Your task to perform on an android device: open app "Paramount+ | Peak Streaming" (install if not already installed) Image 0: 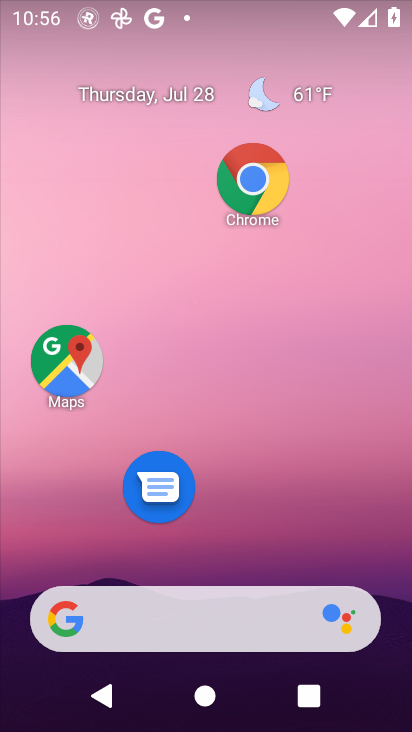
Step 0: drag from (300, 525) to (299, 32)
Your task to perform on an android device: open app "Paramount+ | Peak Streaming" (install if not already installed) Image 1: 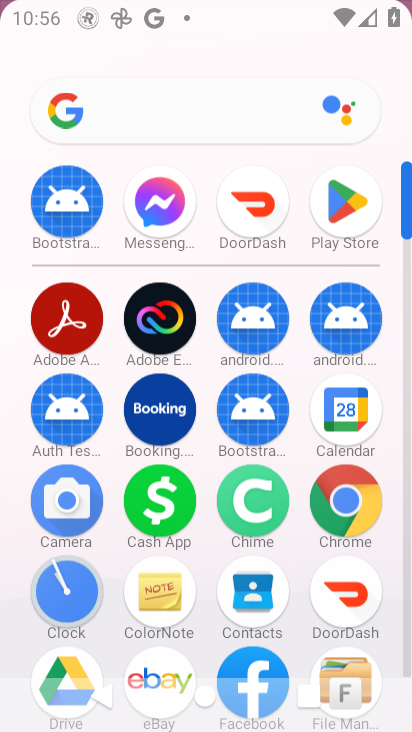
Step 1: drag from (260, 535) to (261, 210)
Your task to perform on an android device: open app "Paramount+ | Peak Streaming" (install if not already installed) Image 2: 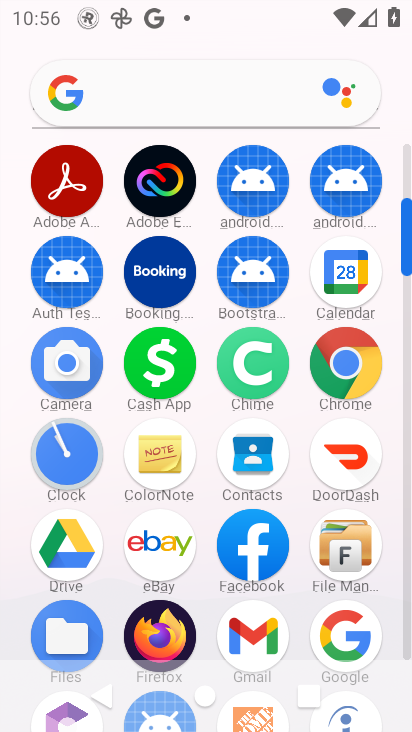
Step 2: drag from (284, 245) to (290, 422)
Your task to perform on an android device: open app "Paramount+ | Peak Streaming" (install if not already installed) Image 3: 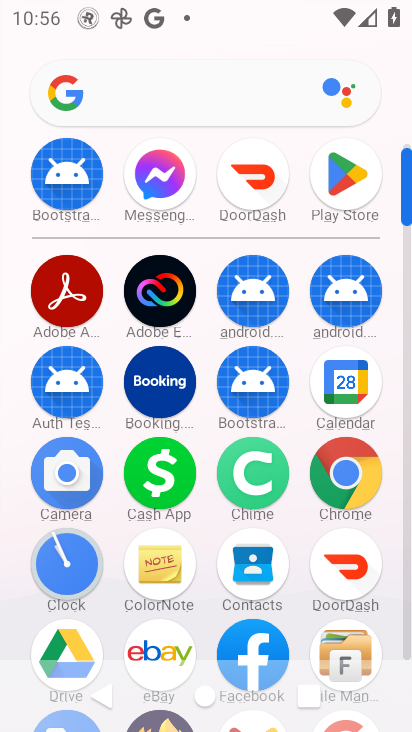
Step 3: click (329, 180)
Your task to perform on an android device: open app "Paramount+ | Peak Streaming" (install if not already installed) Image 4: 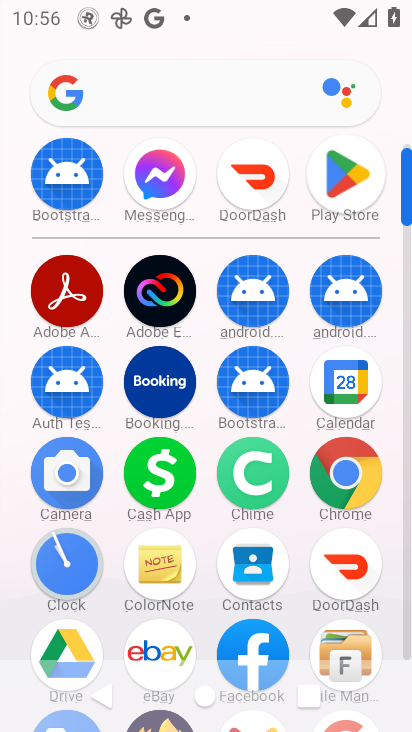
Step 4: click (340, 181)
Your task to perform on an android device: open app "Paramount+ | Peak Streaming" (install if not already installed) Image 5: 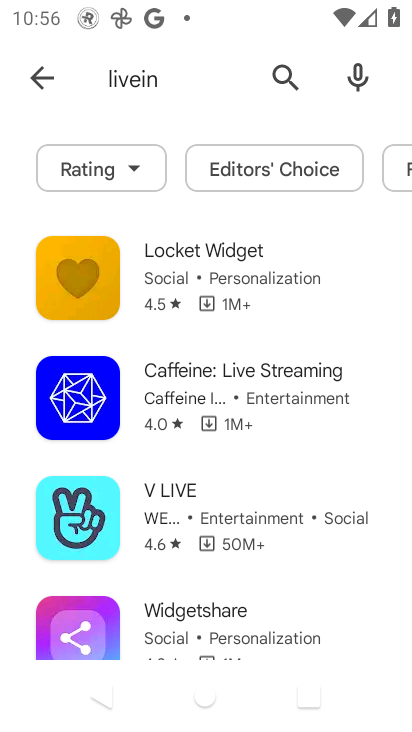
Step 5: click (41, 69)
Your task to perform on an android device: open app "Paramount+ | Peak Streaming" (install if not already installed) Image 6: 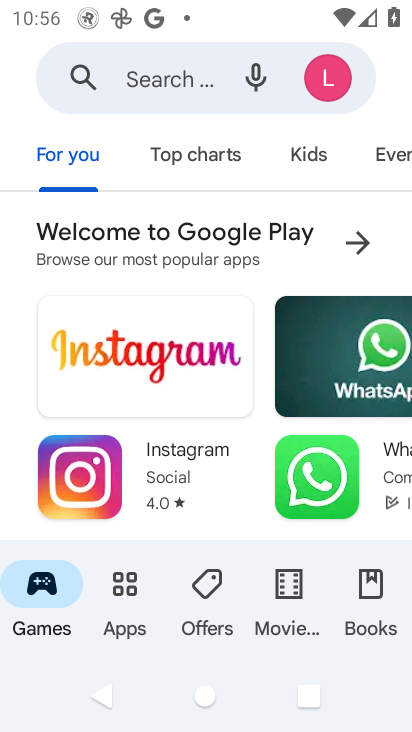
Step 6: click (177, 96)
Your task to perform on an android device: open app "Paramount+ | Peak Streaming" (install if not already installed) Image 7: 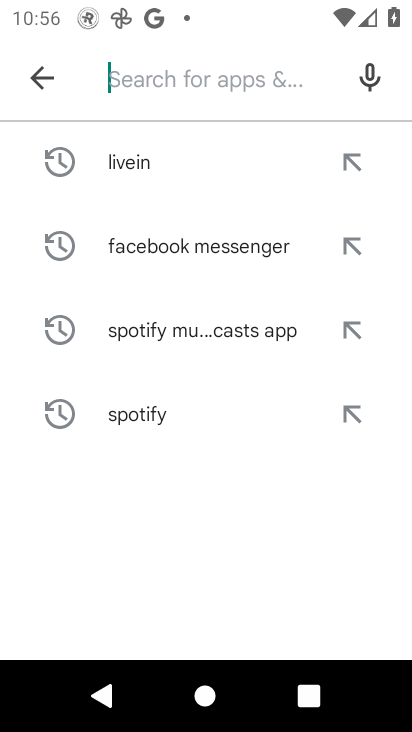
Step 7: type "Paramount +l Peak Streaming"
Your task to perform on an android device: open app "Paramount+ | Peak Streaming" (install if not already installed) Image 8: 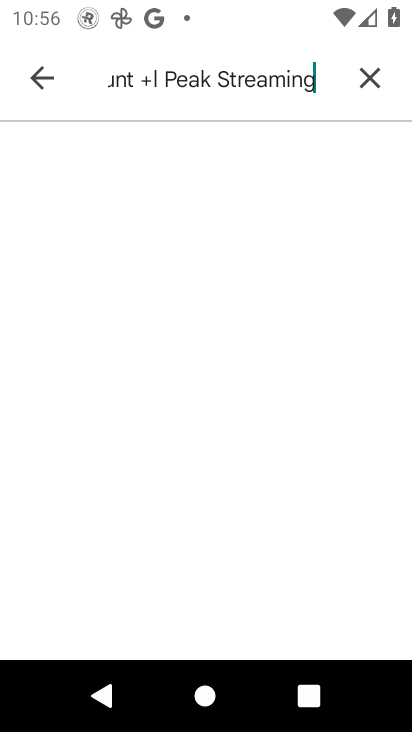
Step 8: click (308, 80)
Your task to perform on an android device: open app "Paramount+ | Peak Streaming" (install if not already installed) Image 9: 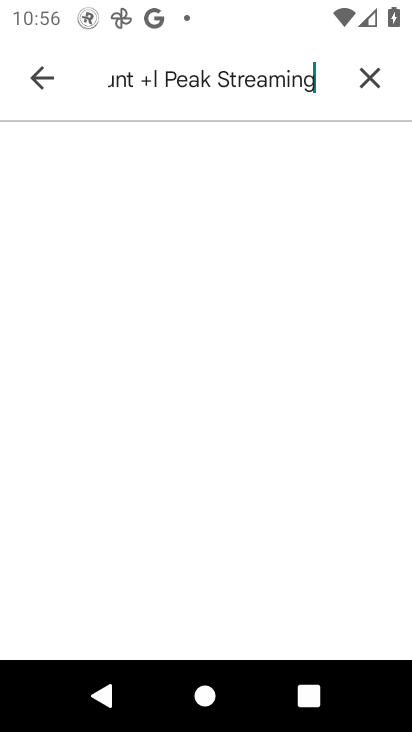
Step 9: click (306, 79)
Your task to perform on an android device: open app "Paramount+ | Peak Streaming" (install if not already installed) Image 10: 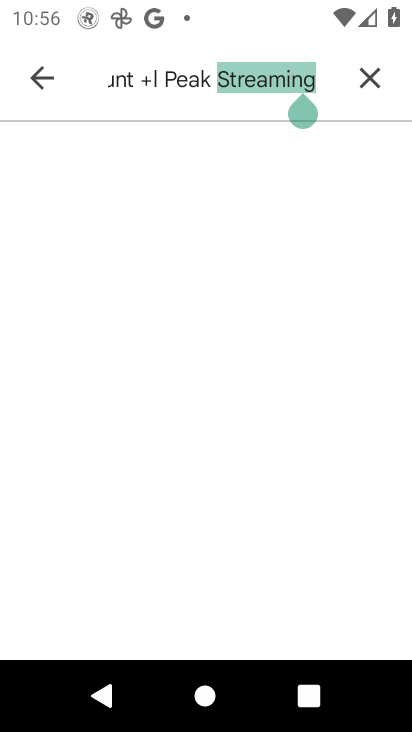
Step 10: click (306, 79)
Your task to perform on an android device: open app "Paramount+ | Peak Streaming" (install if not already installed) Image 11: 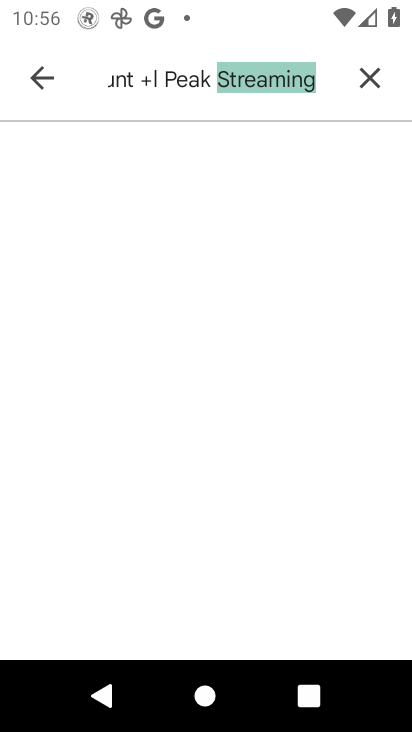
Step 11: click (306, 80)
Your task to perform on an android device: open app "Paramount+ | Peak Streaming" (install if not already installed) Image 12: 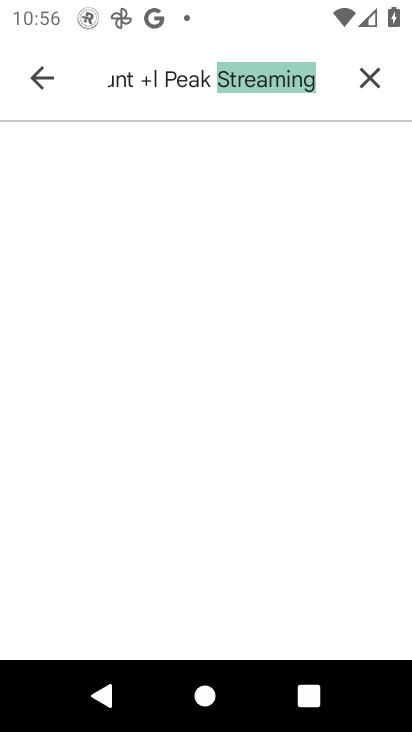
Step 12: click (306, 81)
Your task to perform on an android device: open app "Paramount+ | Peak Streaming" (install if not already installed) Image 13: 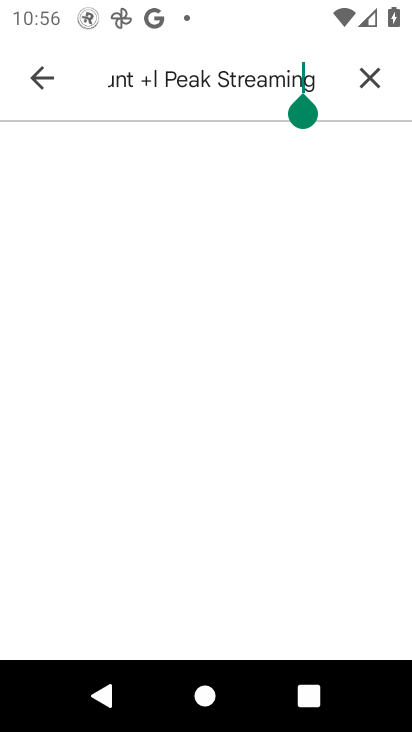
Step 13: click (335, 84)
Your task to perform on an android device: open app "Paramount+ | Peak Streaming" (install if not already installed) Image 14: 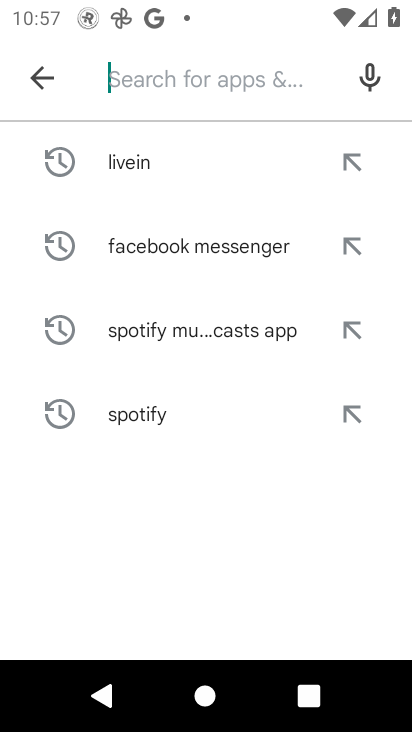
Step 14: click (326, 77)
Your task to perform on an android device: open app "Paramount+ | Peak Streaming" (install if not already installed) Image 15: 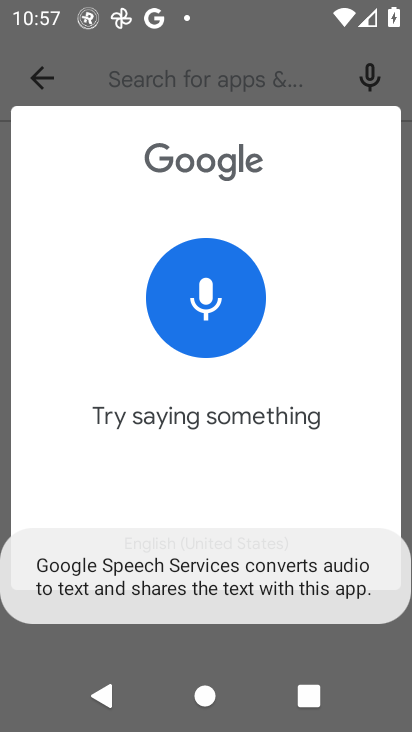
Step 15: click (175, 158)
Your task to perform on an android device: open app "Paramount+ | Peak Streaming" (install if not already installed) Image 16: 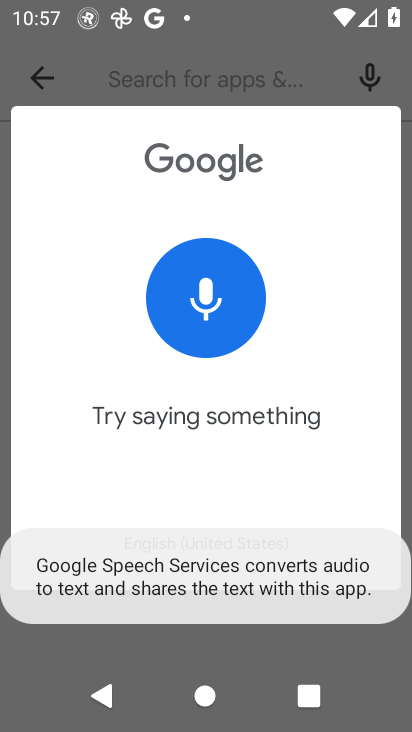
Step 16: click (227, 62)
Your task to perform on an android device: open app "Paramount+ | Peak Streaming" (install if not already installed) Image 17: 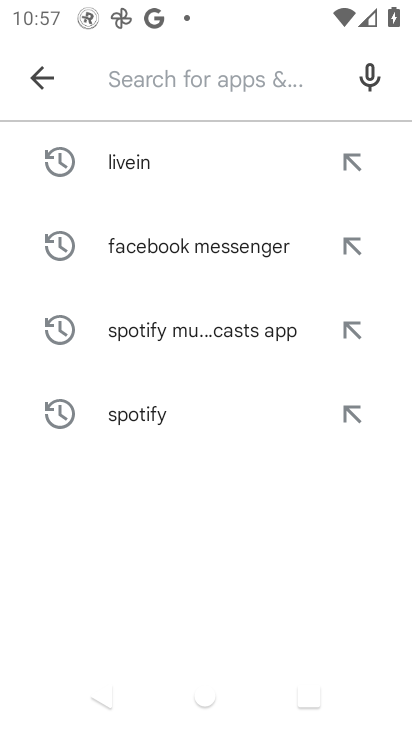
Step 17: type "paramount"
Your task to perform on an android device: open app "Paramount+ | Peak Streaming" (install if not already installed) Image 18: 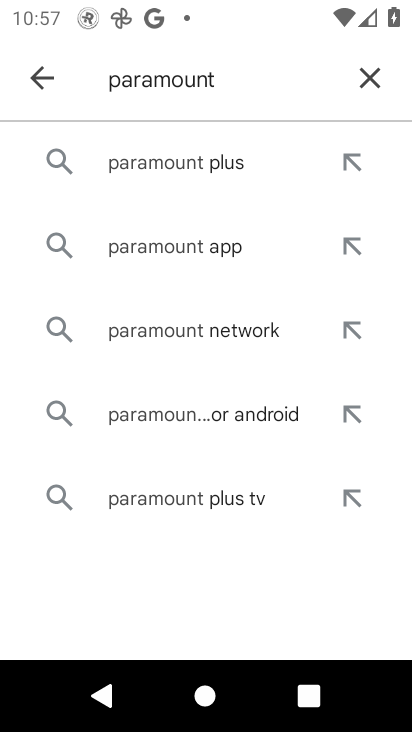
Step 18: click (124, 164)
Your task to perform on an android device: open app "Paramount+ | Peak Streaming" (install if not already installed) Image 19: 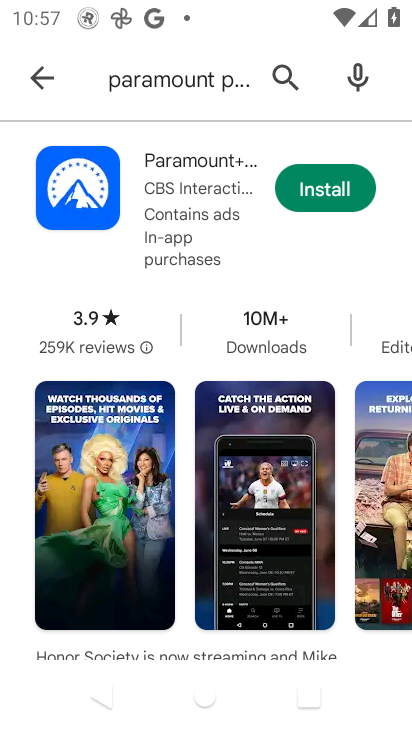
Step 19: click (299, 173)
Your task to perform on an android device: open app "Paramount+ | Peak Streaming" (install if not already installed) Image 20: 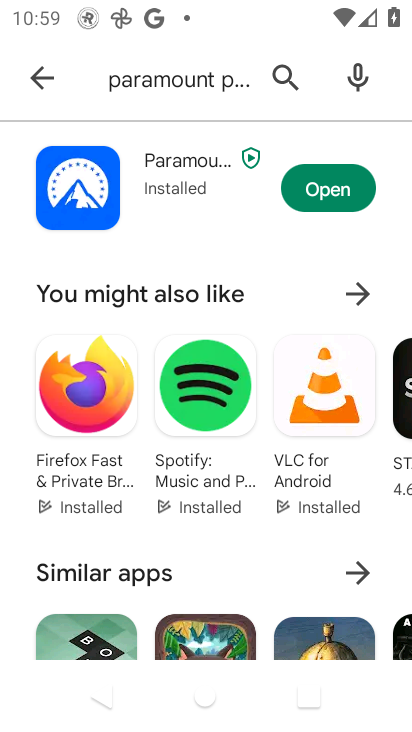
Step 20: click (330, 180)
Your task to perform on an android device: open app "Paramount+ | Peak Streaming" (install if not already installed) Image 21: 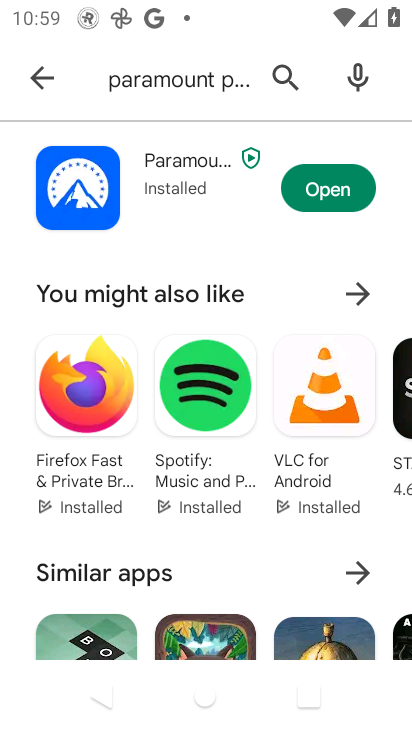
Step 21: click (330, 180)
Your task to perform on an android device: open app "Paramount+ | Peak Streaming" (install if not already installed) Image 22: 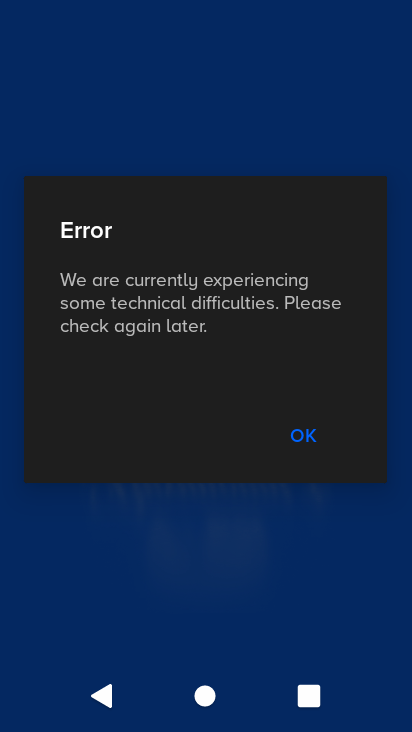
Step 22: click (302, 431)
Your task to perform on an android device: open app "Paramount+ | Peak Streaming" (install if not already installed) Image 23: 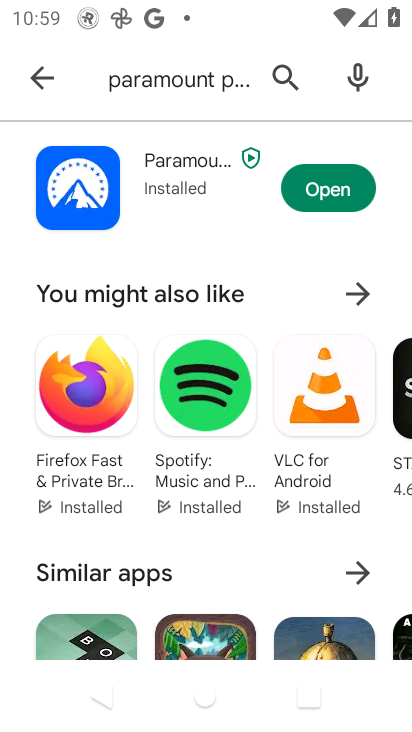
Step 23: click (323, 188)
Your task to perform on an android device: open app "Paramount+ | Peak Streaming" (install if not already installed) Image 24: 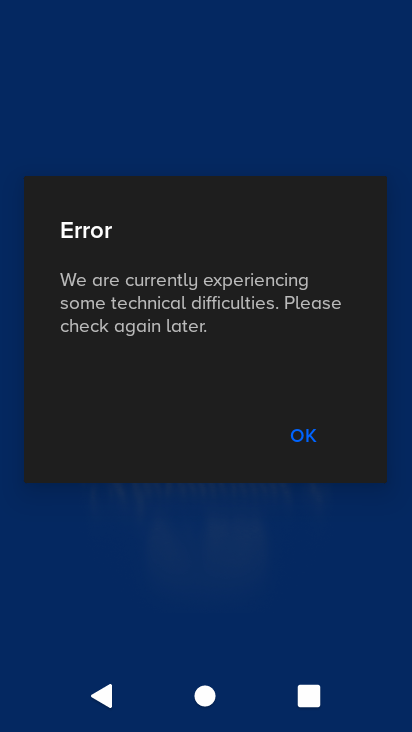
Step 24: click (314, 440)
Your task to perform on an android device: open app "Paramount+ | Peak Streaming" (install if not already installed) Image 25: 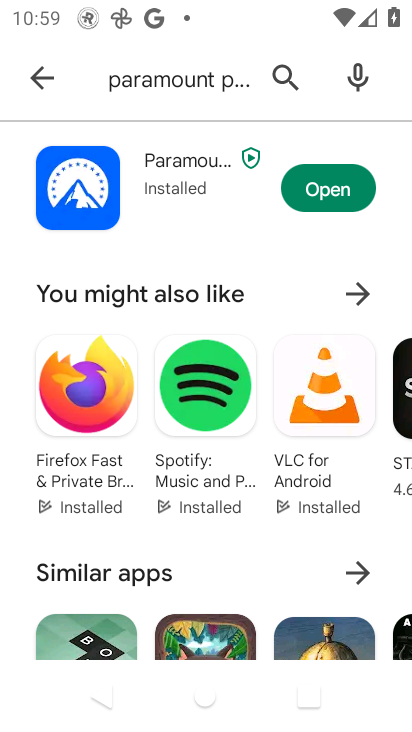
Step 25: task complete